Your task to perform on an android device: open wifi settings Image 0: 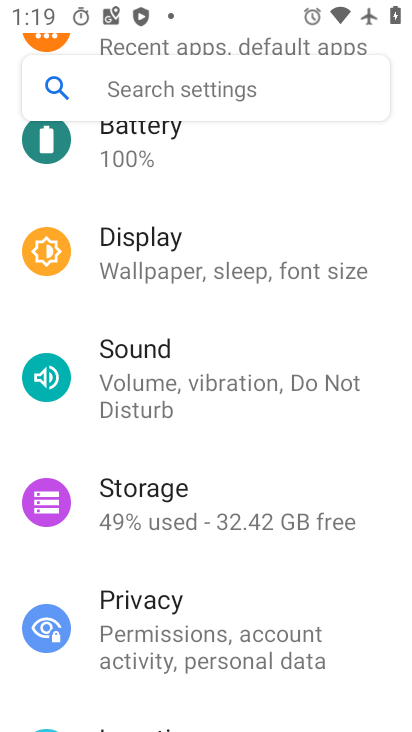
Step 0: press home button
Your task to perform on an android device: open wifi settings Image 1: 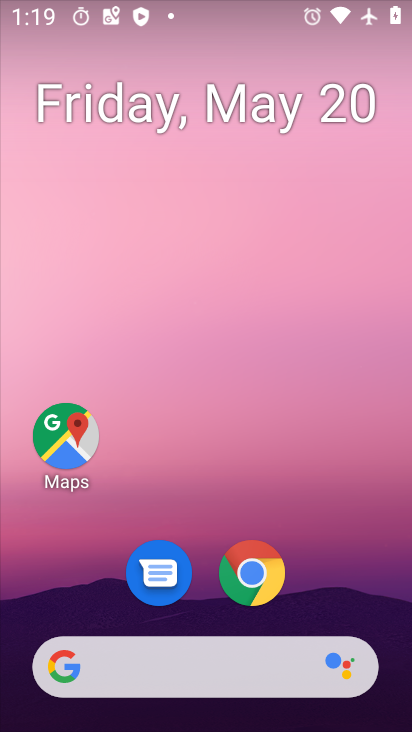
Step 1: drag from (357, 556) to (331, 88)
Your task to perform on an android device: open wifi settings Image 2: 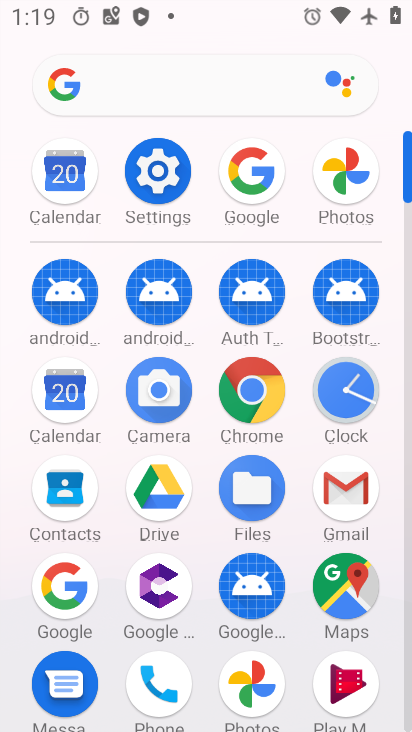
Step 2: click (165, 162)
Your task to perform on an android device: open wifi settings Image 3: 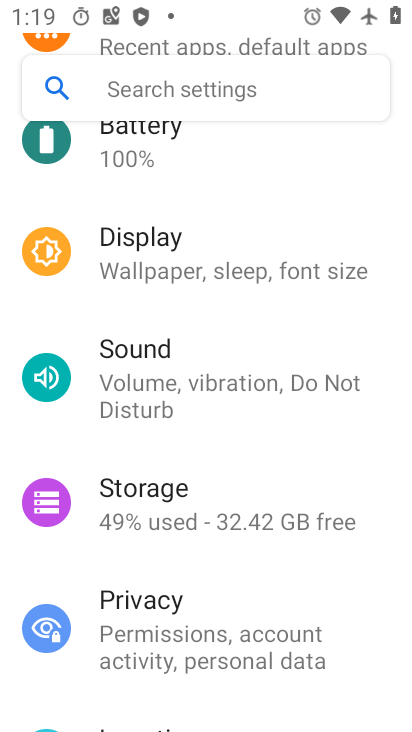
Step 3: drag from (240, 217) to (344, 674)
Your task to perform on an android device: open wifi settings Image 4: 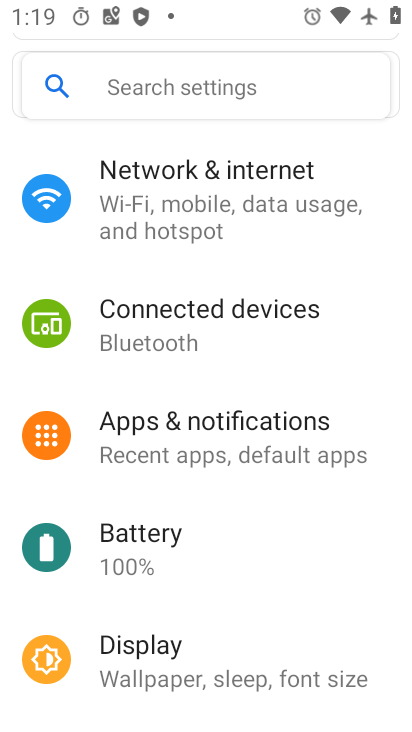
Step 4: drag from (151, 194) to (260, 446)
Your task to perform on an android device: open wifi settings Image 5: 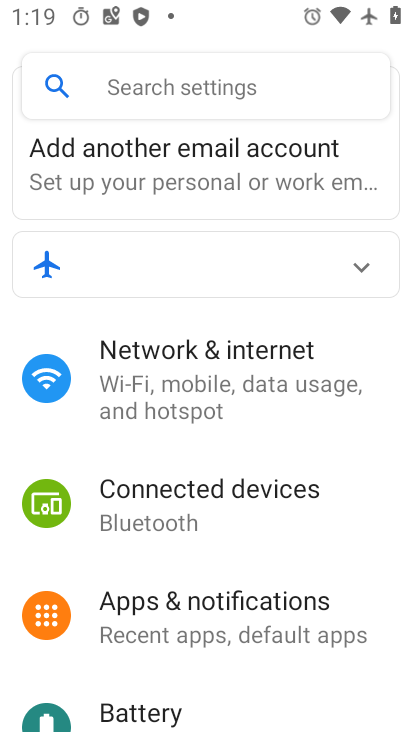
Step 5: click (213, 377)
Your task to perform on an android device: open wifi settings Image 6: 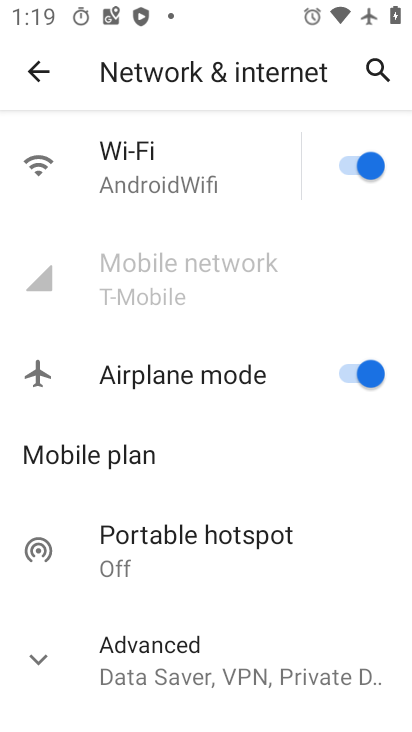
Step 6: click (248, 145)
Your task to perform on an android device: open wifi settings Image 7: 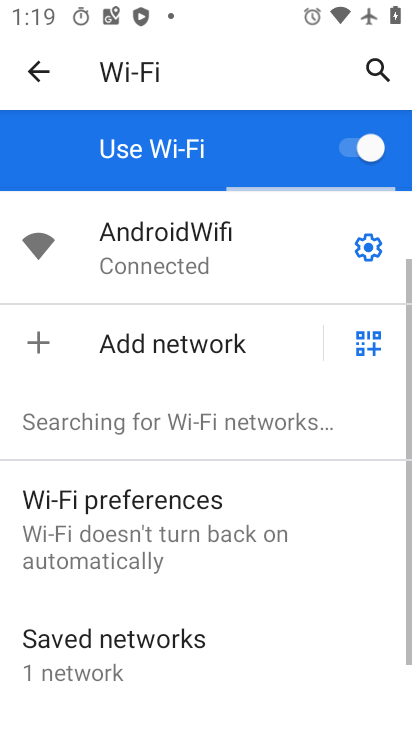
Step 7: click (382, 239)
Your task to perform on an android device: open wifi settings Image 8: 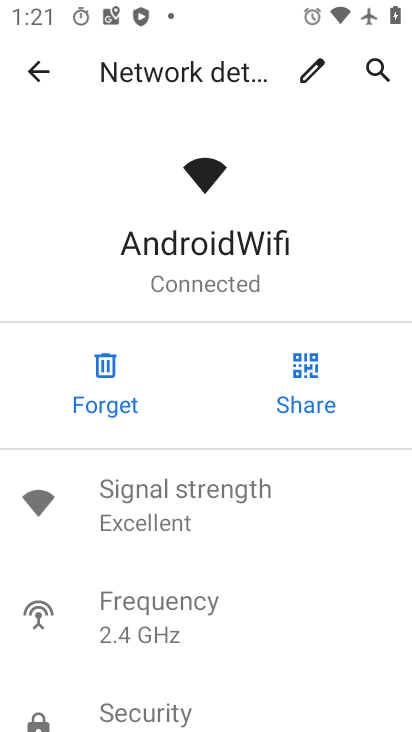
Step 8: task complete